Your task to perform on an android device: find snoozed emails in the gmail app Image 0: 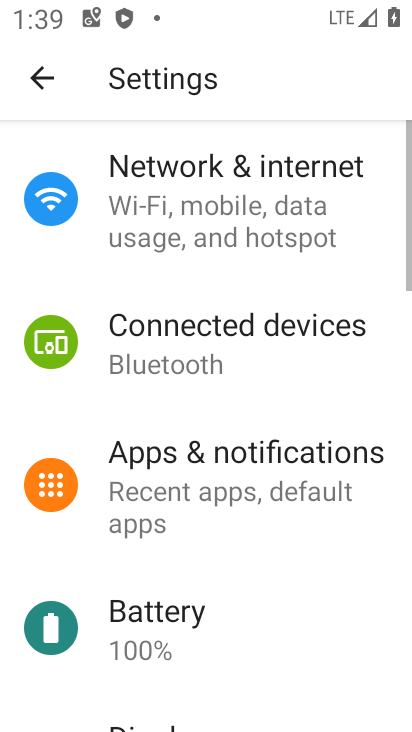
Step 0: press home button
Your task to perform on an android device: find snoozed emails in the gmail app Image 1: 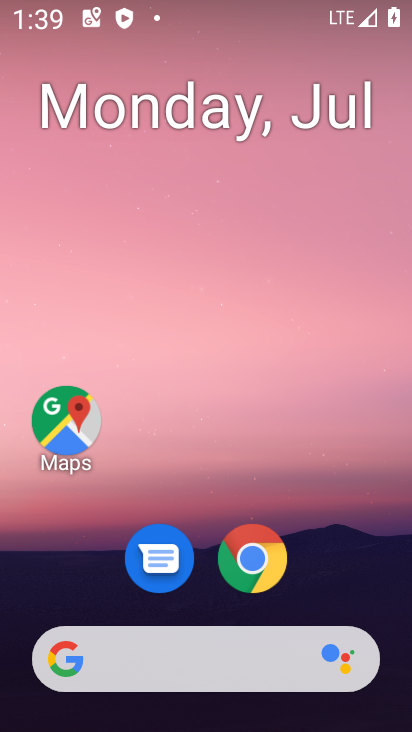
Step 1: drag from (361, 563) to (380, 13)
Your task to perform on an android device: find snoozed emails in the gmail app Image 2: 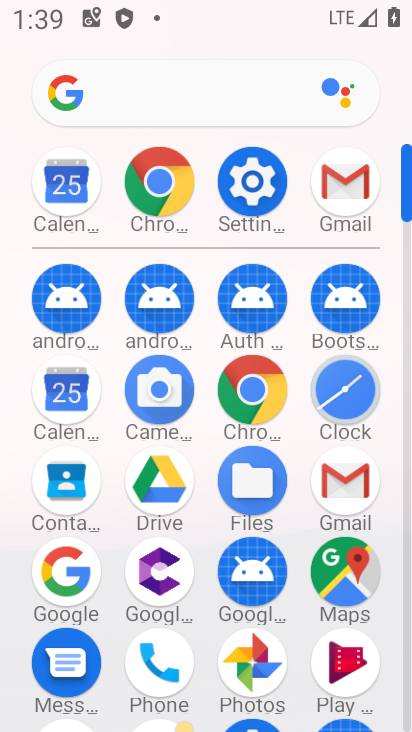
Step 2: click (348, 488)
Your task to perform on an android device: find snoozed emails in the gmail app Image 3: 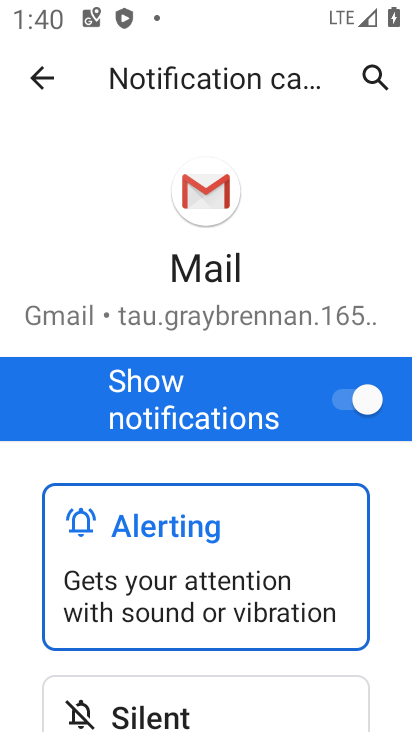
Step 3: press back button
Your task to perform on an android device: find snoozed emails in the gmail app Image 4: 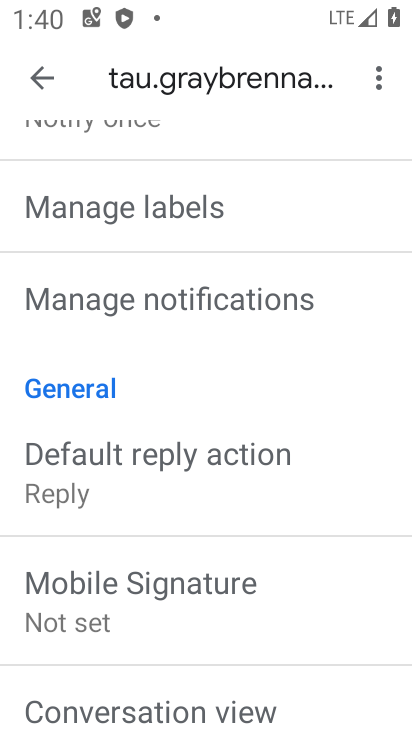
Step 4: press back button
Your task to perform on an android device: find snoozed emails in the gmail app Image 5: 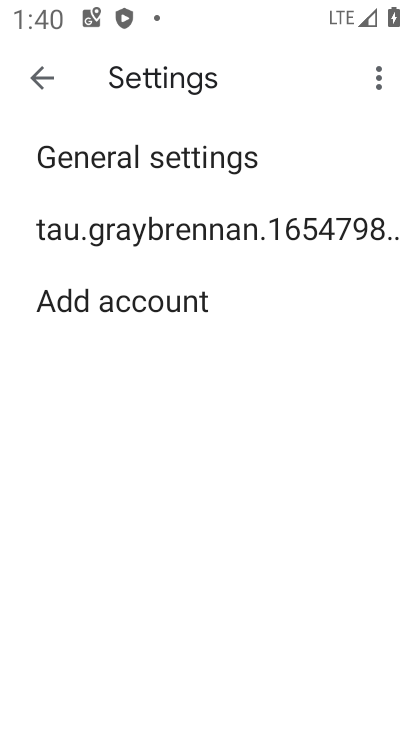
Step 5: press back button
Your task to perform on an android device: find snoozed emails in the gmail app Image 6: 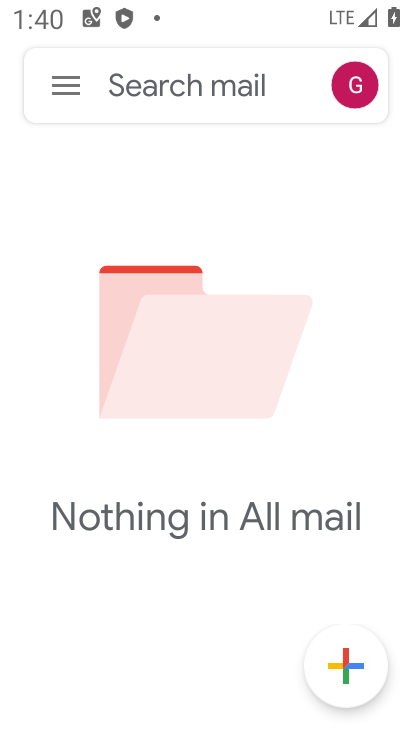
Step 6: click (65, 85)
Your task to perform on an android device: find snoozed emails in the gmail app Image 7: 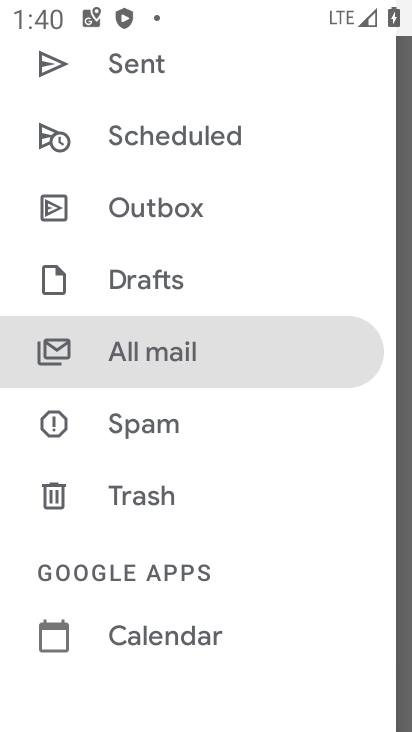
Step 7: drag from (282, 169) to (284, 295)
Your task to perform on an android device: find snoozed emails in the gmail app Image 8: 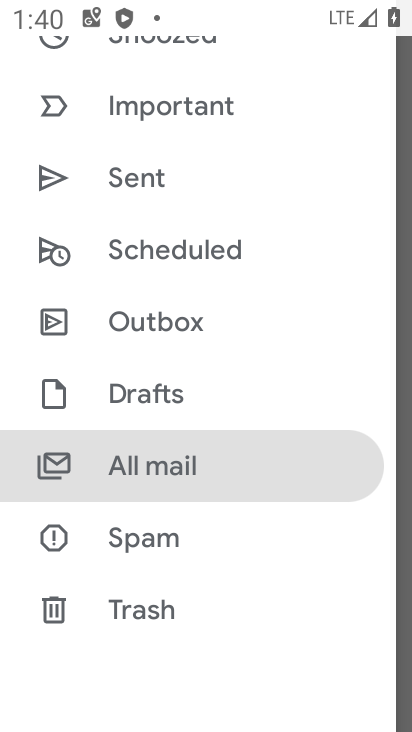
Step 8: drag from (303, 113) to (302, 260)
Your task to perform on an android device: find snoozed emails in the gmail app Image 9: 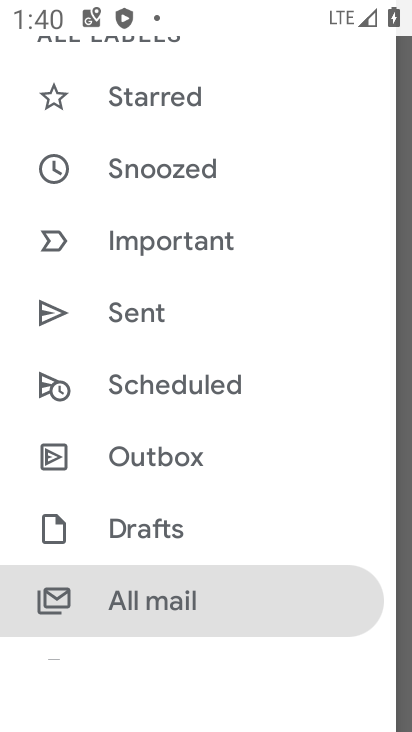
Step 9: click (242, 181)
Your task to perform on an android device: find snoozed emails in the gmail app Image 10: 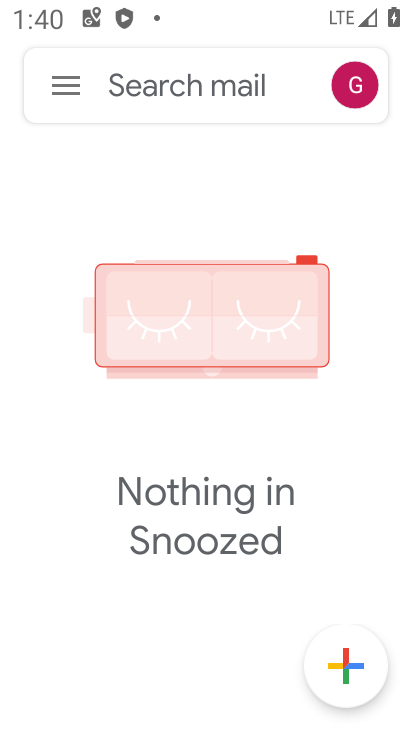
Step 10: task complete